Your task to perform on an android device: open the mobile data screen to see how much data has been used Image 0: 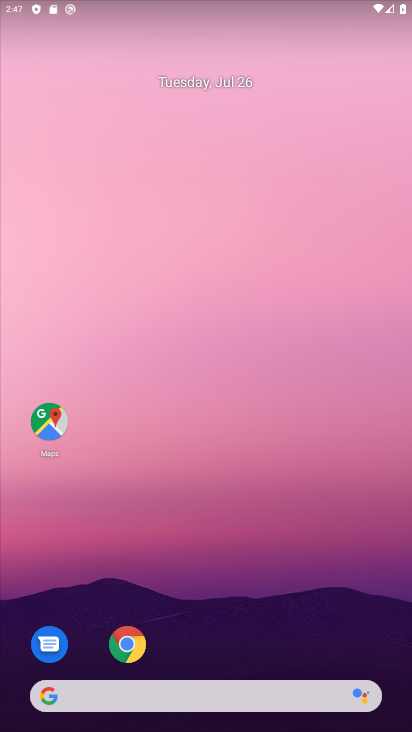
Step 0: drag from (239, 668) to (227, 133)
Your task to perform on an android device: open the mobile data screen to see how much data has been used Image 1: 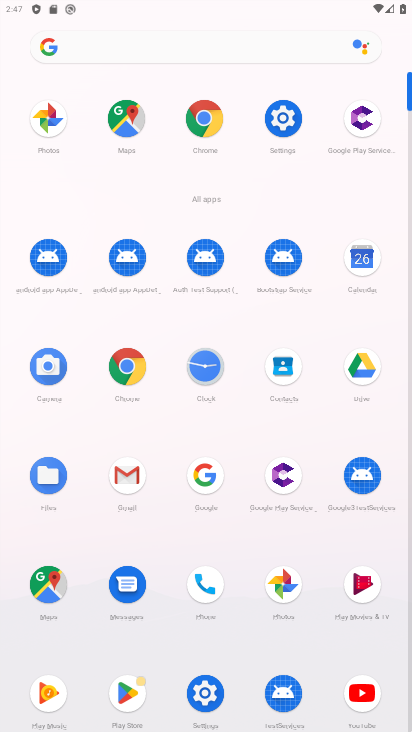
Step 1: click (280, 120)
Your task to perform on an android device: open the mobile data screen to see how much data has been used Image 2: 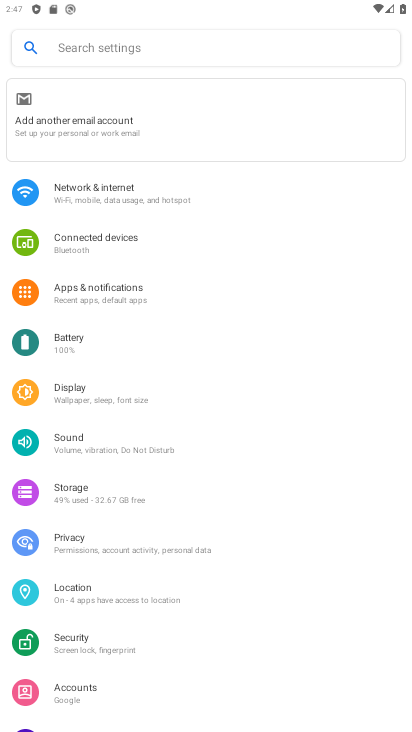
Step 2: click (79, 192)
Your task to perform on an android device: open the mobile data screen to see how much data has been used Image 3: 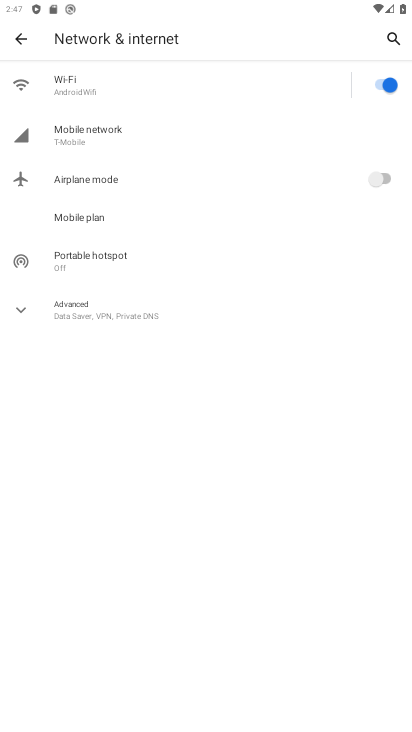
Step 3: click (80, 129)
Your task to perform on an android device: open the mobile data screen to see how much data has been used Image 4: 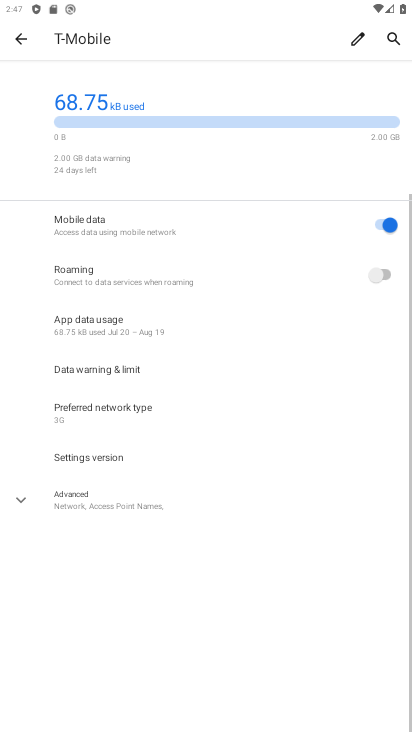
Step 4: click (96, 497)
Your task to perform on an android device: open the mobile data screen to see how much data has been used Image 5: 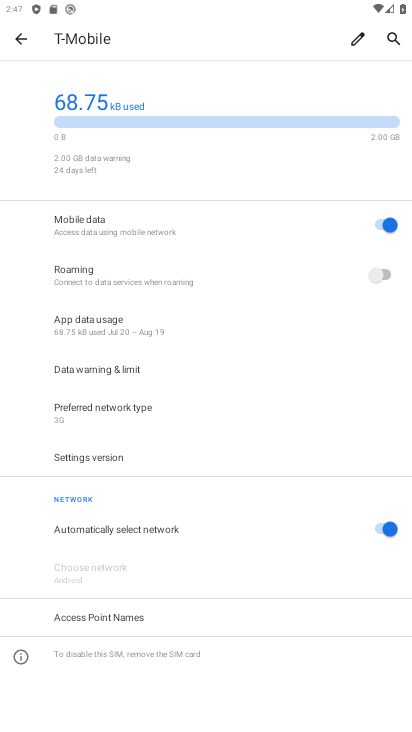
Step 5: task complete